Your task to perform on an android device: open app "McDonald's" Image 0: 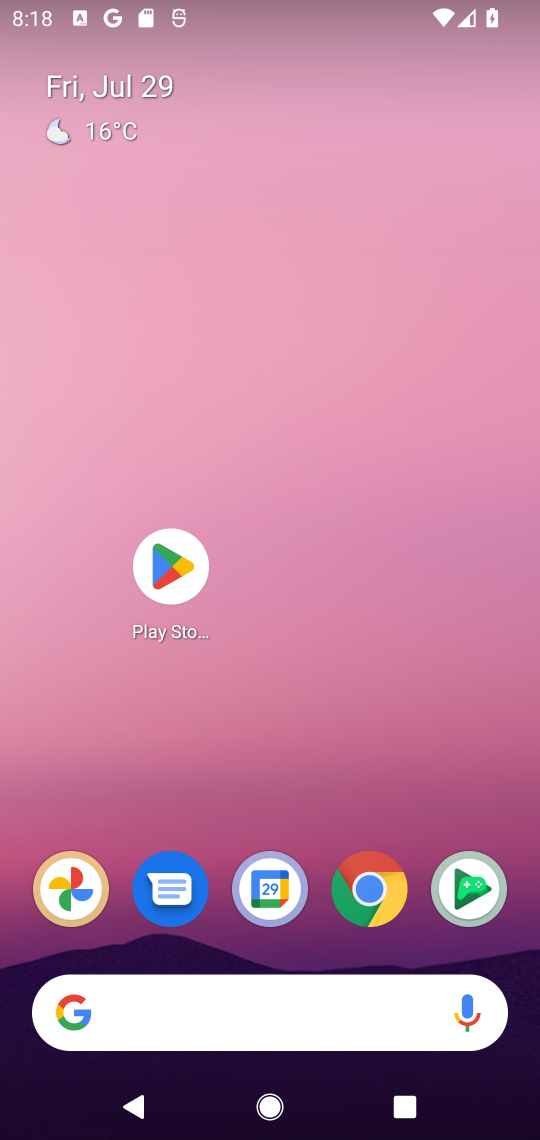
Step 0: press home button
Your task to perform on an android device: open app "McDonald's" Image 1: 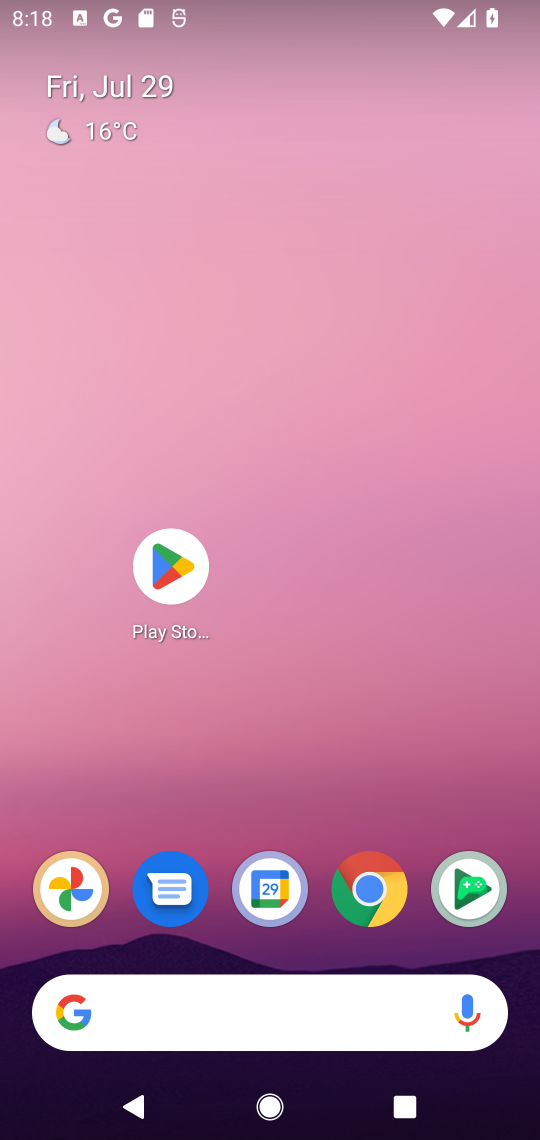
Step 1: click (169, 575)
Your task to perform on an android device: open app "McDonald's" Image 2: 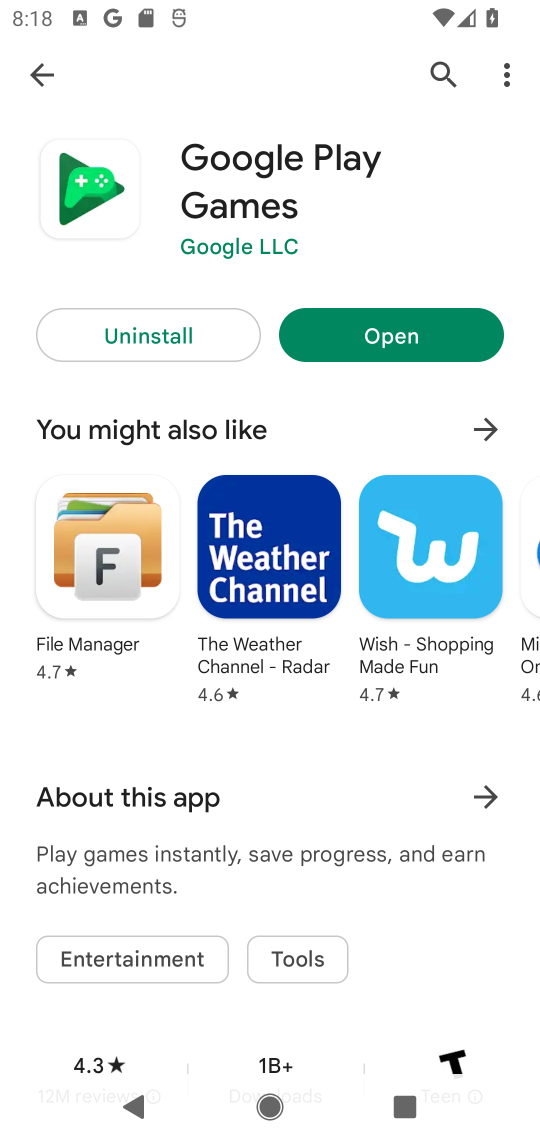
Step 2: click (439, 75)
Your task to perform on an android device: open app "McDonald's" Image 3: 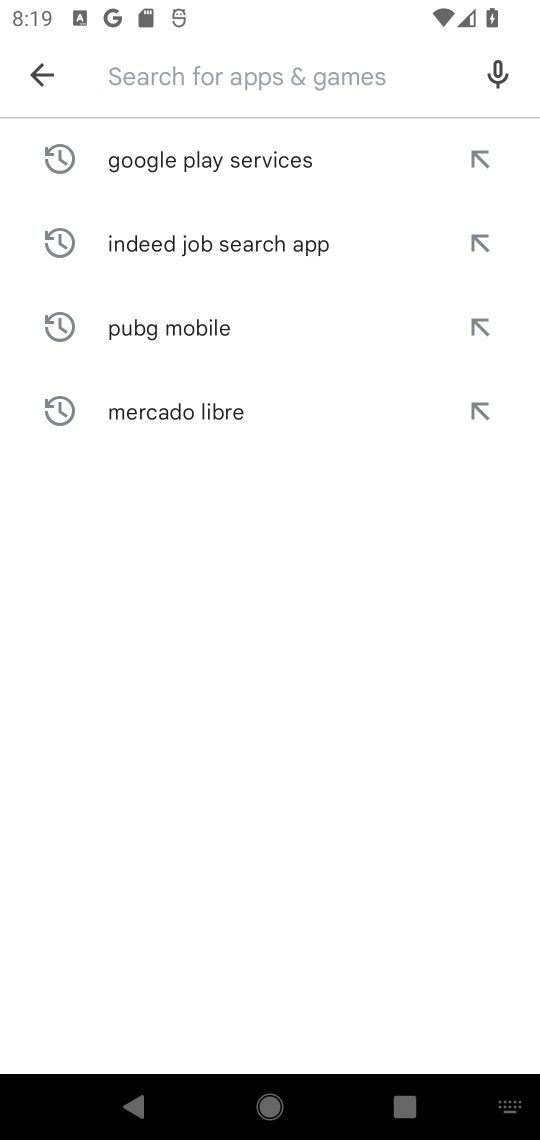
Step 3: type "McDonald's"
Your task to perform on an android device: open app "McDonald's" Image 4: 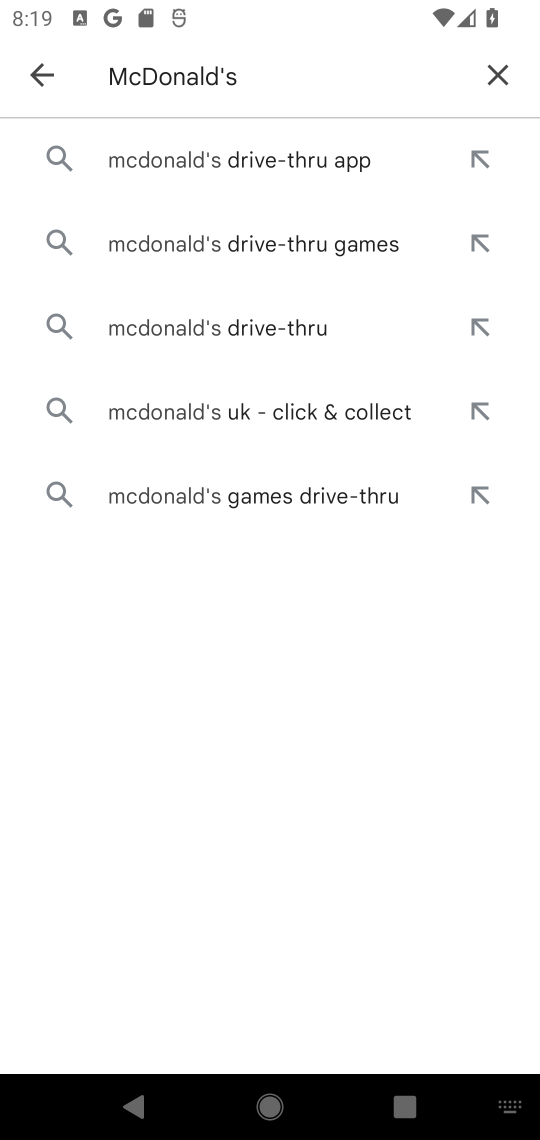
Step 4: click (281, 153)
Your task to perform on an android device: open app "McDonald's" Image 5: 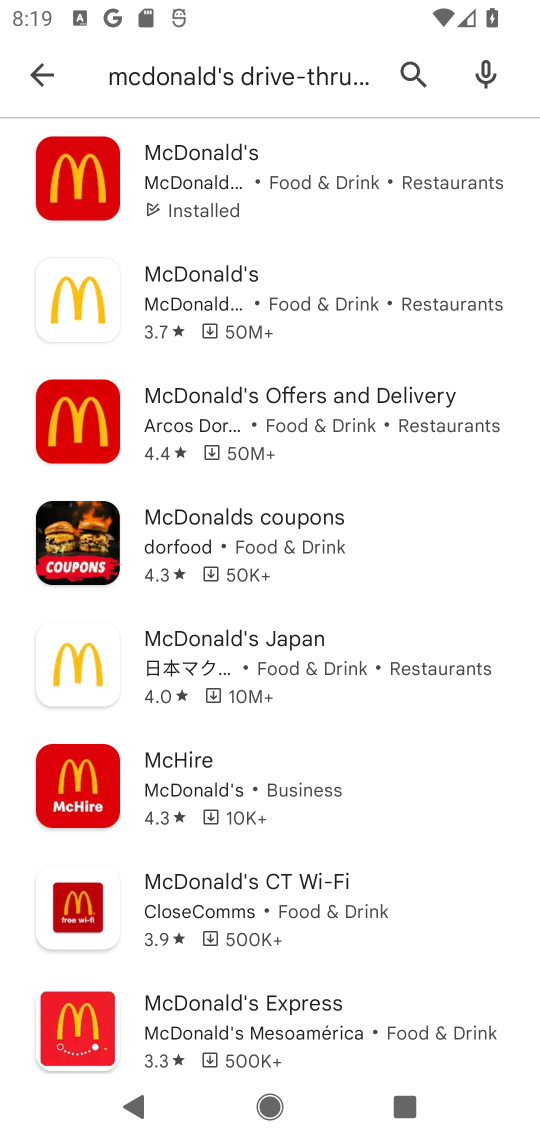
Step 5: click (253, 189)
Your task to perform on an android device: open app "McDonald's" Image 6: 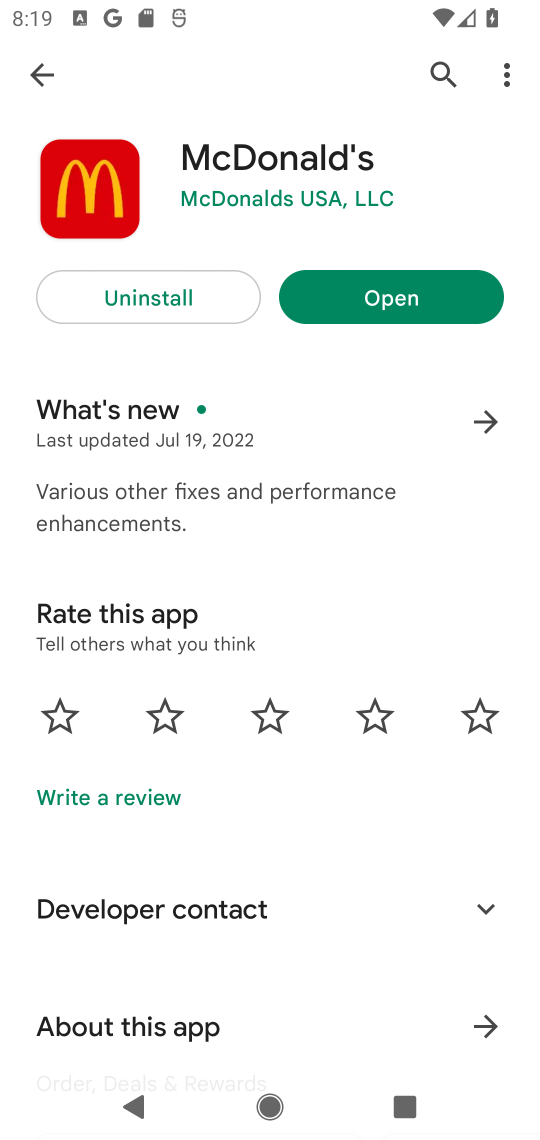
Step 6: click (379, 299)
Your task to perform on an android device: open app "McDonald's" Image 7: 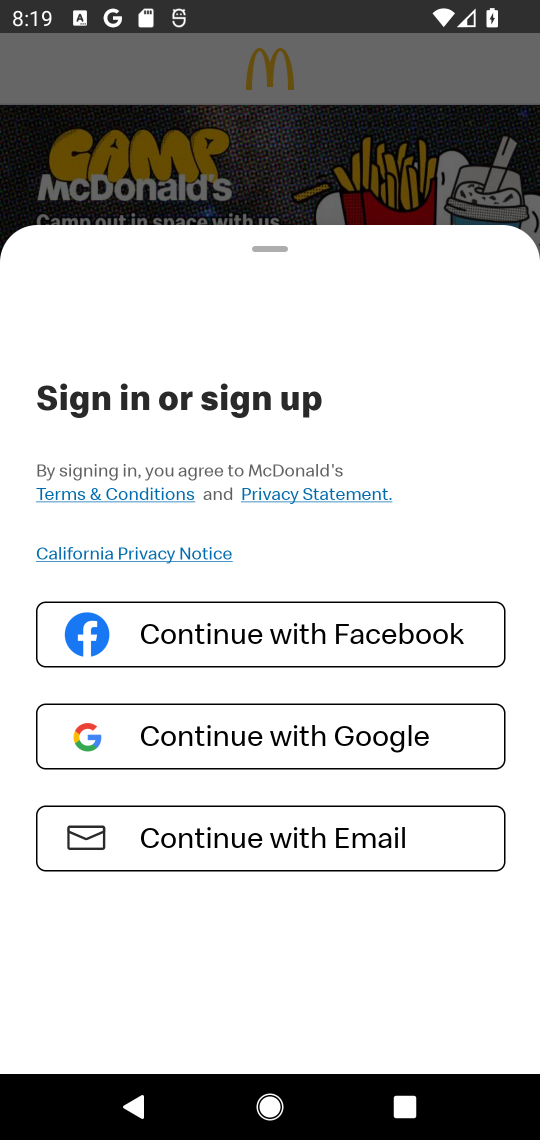
Step 7: task complete